Your task to perform on an android device: Is it going to rain tomorrow? Image 0: 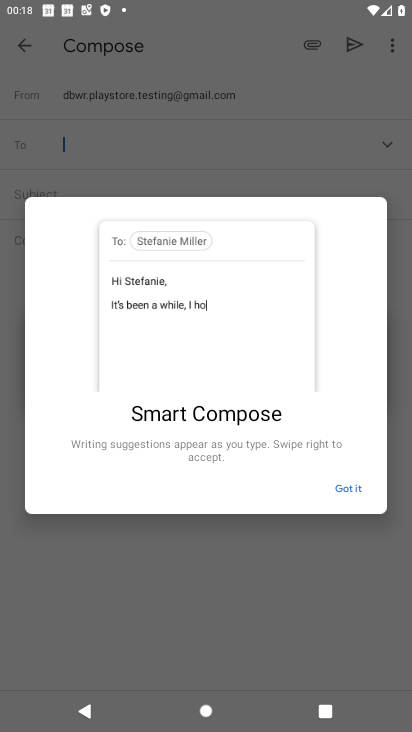
Step 0: press home button
Your task to perform on an android device: Is it going to rain tomorrow? Image 1: 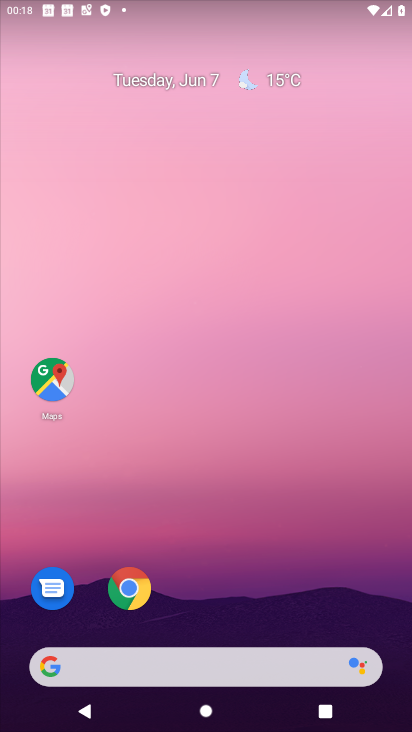
Step 1: click (126, 574)
Your task to perform on an android device: Is it going to rain tomorrow? Image 2: 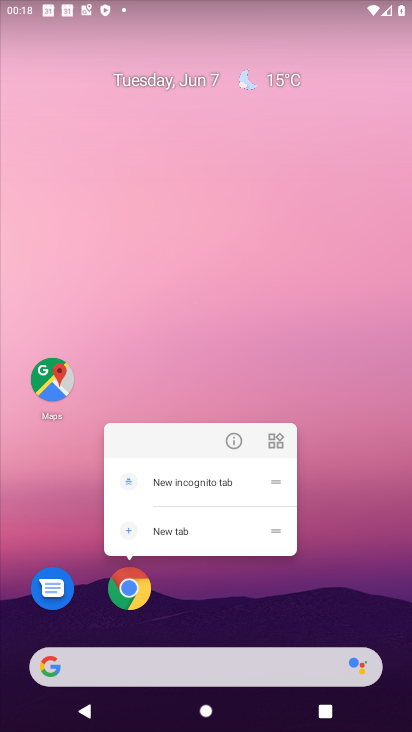
Step 2: click (128, 588)
Your task to perform on an android device: Is it going to rain tomorrow? Image 3: 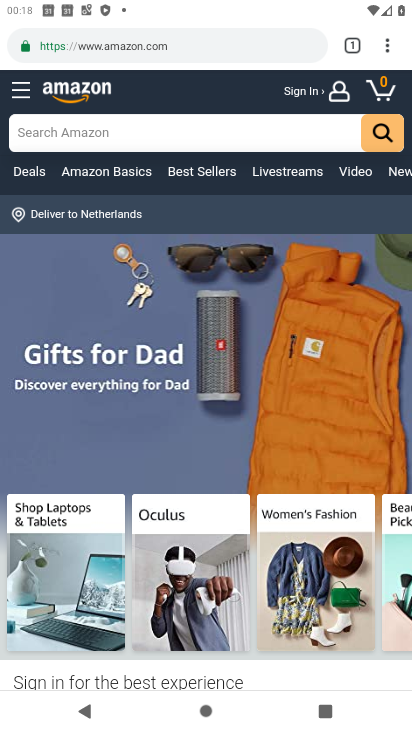
Step 3: click (388, 40)
Your task to perform on an android device: Is it going to rain tomorrow? Image 4: 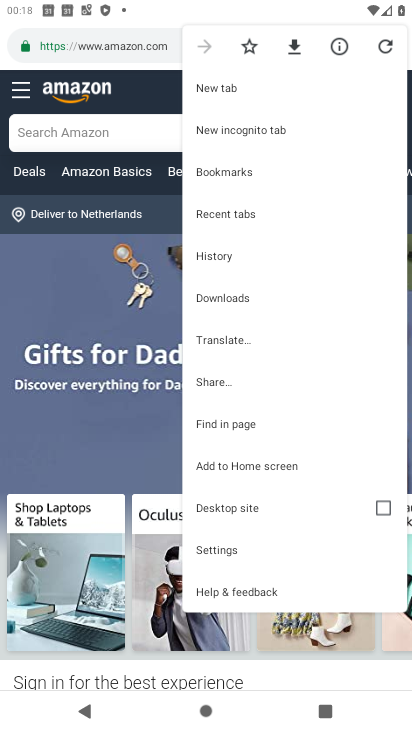
Step 4: click (223, 87)
Your task to perform on an android device: Is it going to rain tomorrow? Image 5: 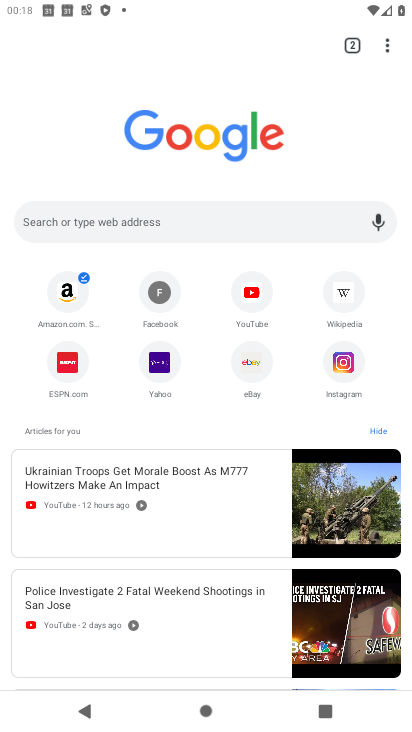
Step 5: click (152, 215)
Your task to perform on an android device: Is it going to rain tomorrow? Image 6: 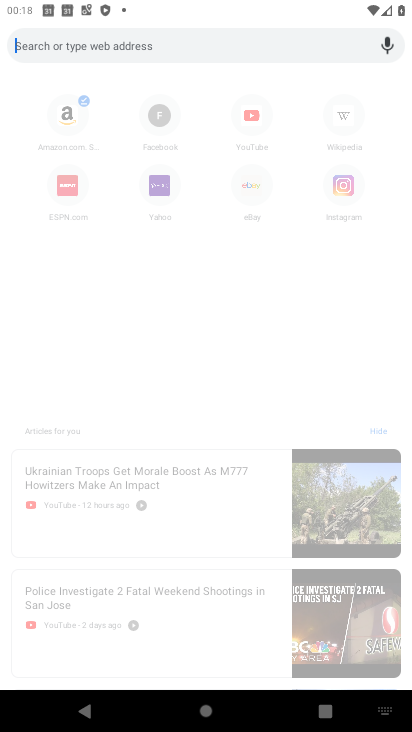
Step 6: type "Is it going to rain tomorrow?"
Your task to perform on an android device: Is it going to rain tomorrow? Image 7: 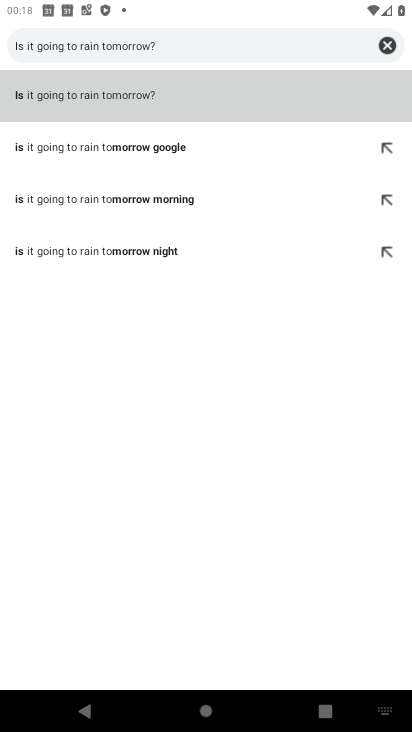
Step 7: click (123, 110)
Your task to perform on an android device: Is it going to rain tomorrow? Image 8: 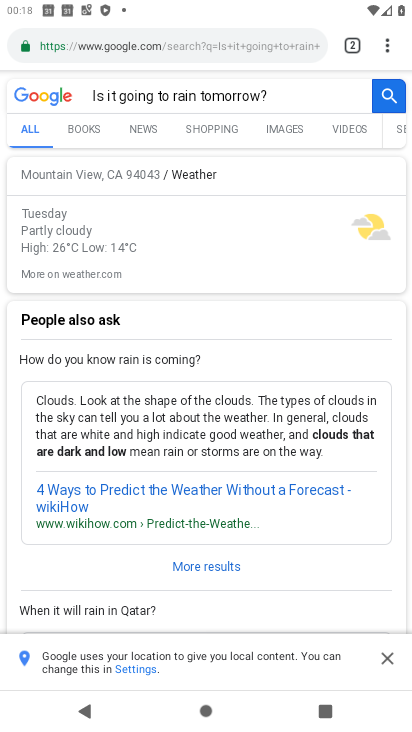
Step 8: task complete